Your task to perform on an android device: Go to location settings Image 0: 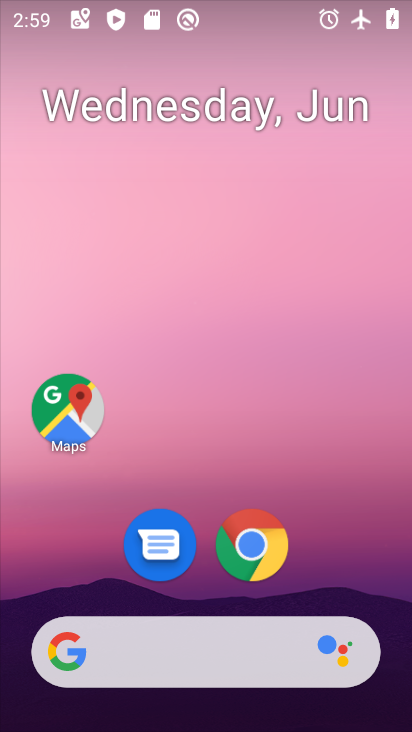
Step 0: drag from (330, 567) to (317, 175)
Your task to perform on an android device: Go to location settings Image 1: 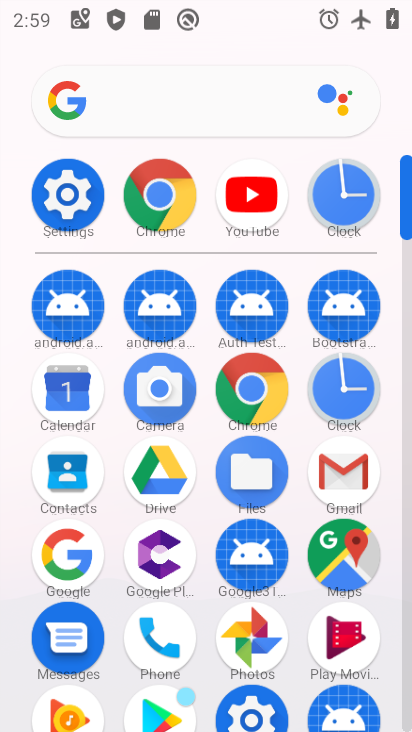
Step 1: click (87, 197)
Your task to perform on an android device: Go to location settings Image 2: 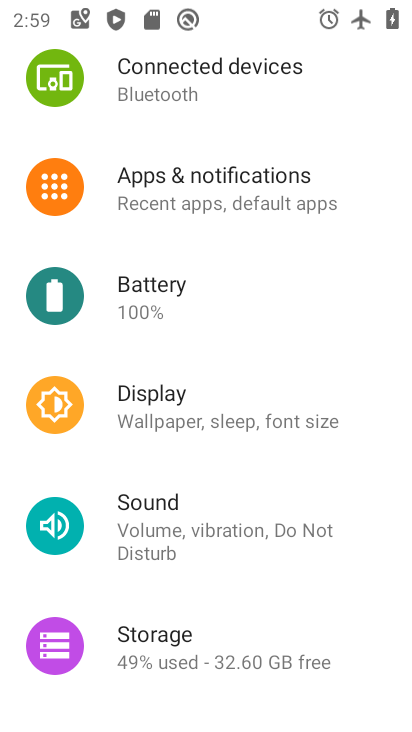
Step 2: drag from (281, 231) to (235, 555)
Your task to perform on an android device: Go to location settings Image 3: 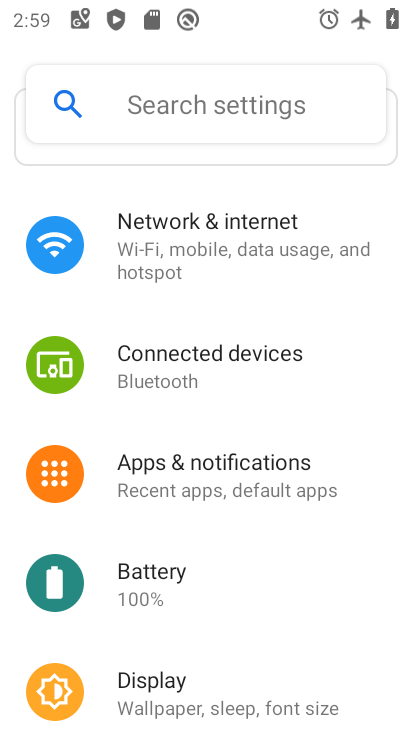
Step 3: drag from (266, 566) to (262, 201)
Your task to perform on an android device: Go to location settings Image 4: 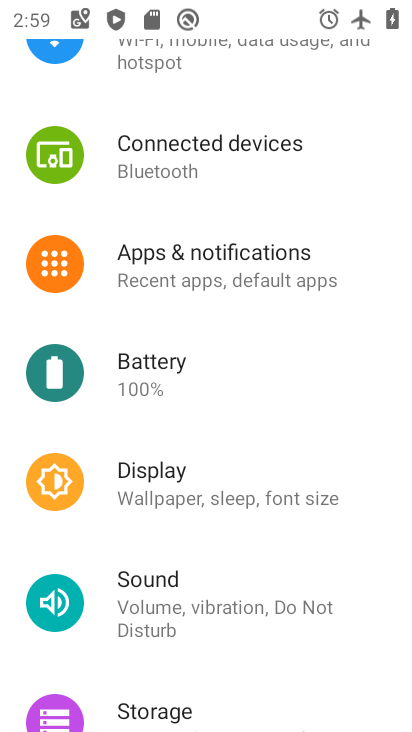
Step 4: drag from (248, 561) to (260, 188)
Your task to perform on an android device: Go to location settings Image 5: 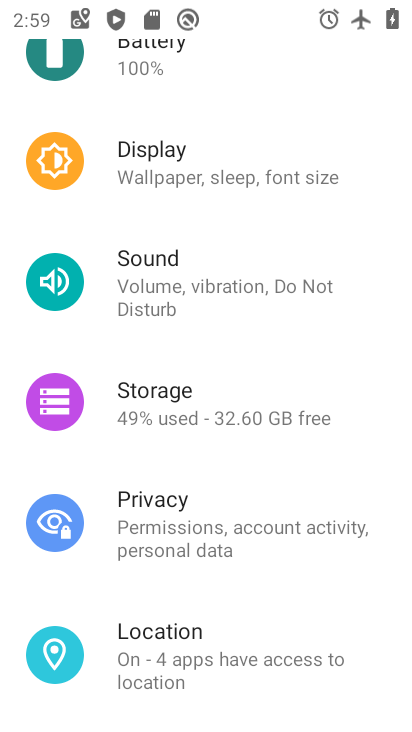
Step 5: click (169, 671)
Your task to perform on an android device: Go to location settings Image 6: 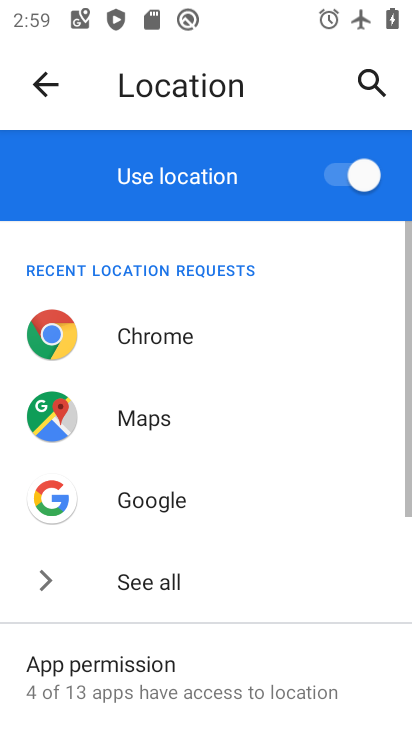
Step 6: task complete